Your task to perform on an android device: change the clock style Image 0: 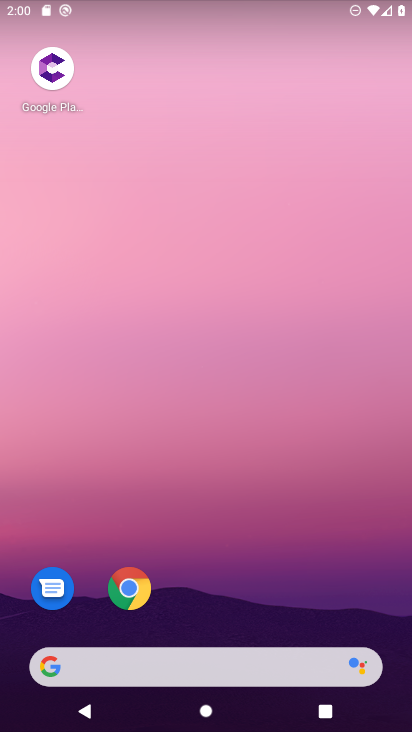
Step 0: drag from (184, 644) to (258, 96)
Your task to perform on an android device: change the clock style Image 1: 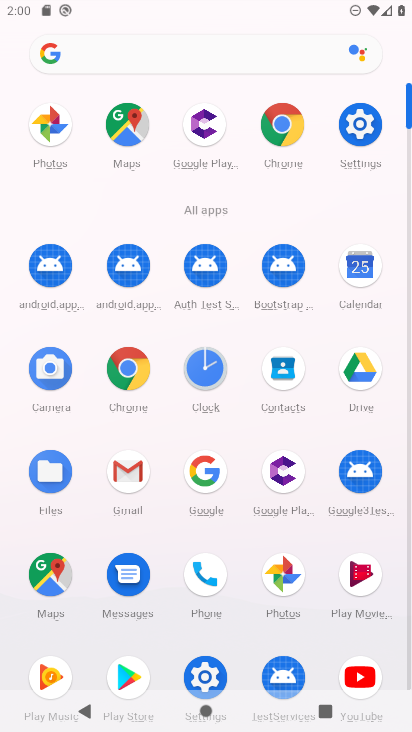
Step 1: click (189, 366)
Your task to perform on an android device: change the clock style Image 2: 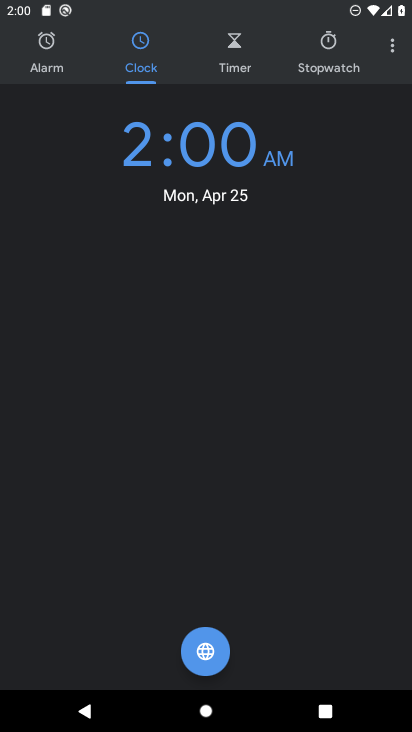
Step 2: click (395, 46)
Your task to perform on an android device: change the clock style Image 3: 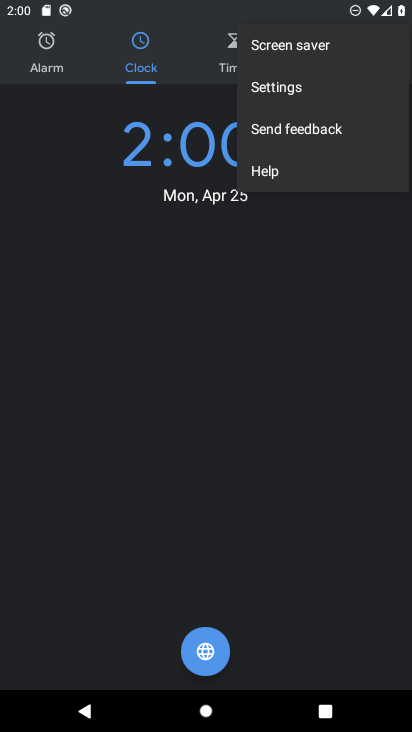
Step 3: click (365, 77)
Your task to perform on an android device: change the clock style Image 4: 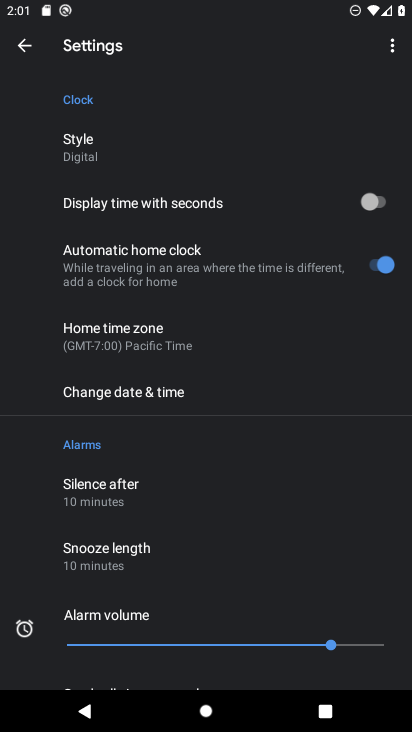
Step 4: click (237, 150)
Your task to perform on an android device: change the clock style Image 5: 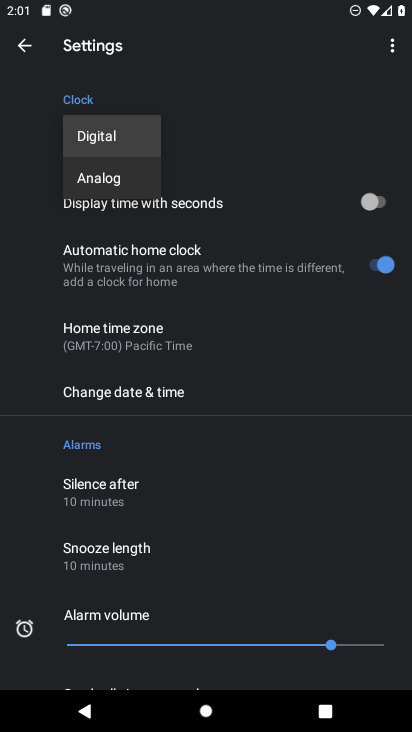
Step 5: click (145, 183)
Your task to perform on an android device: change the clock style Image 6: 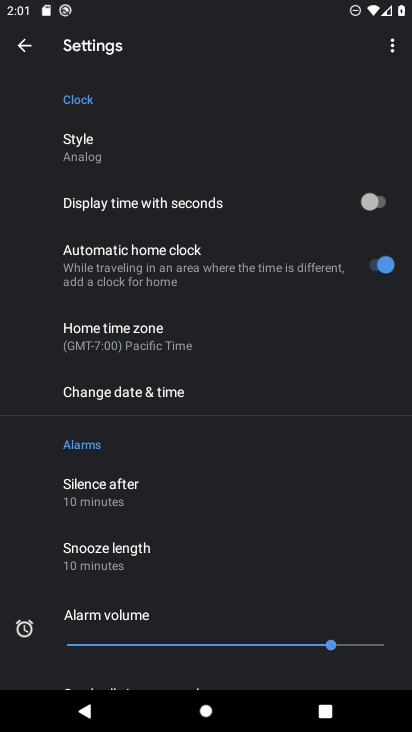
Step 6: task complete